Your task to perform on an android device: Is it going to rain tomorrow? Image 0: 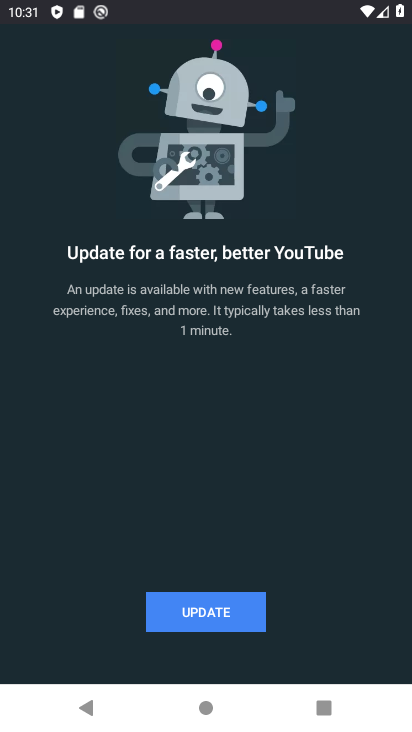
Step 0: press back button
Your task to perform on an android device: Is it going to rain tomorrow? Image 1: 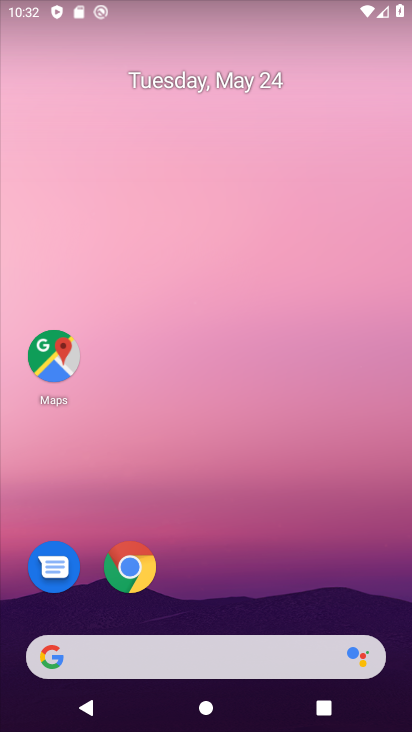
Step 1: drag from (26, 248) to (354, 273)
Your task to perform on an android device: Is it going to rain tomorrow? Image 2: 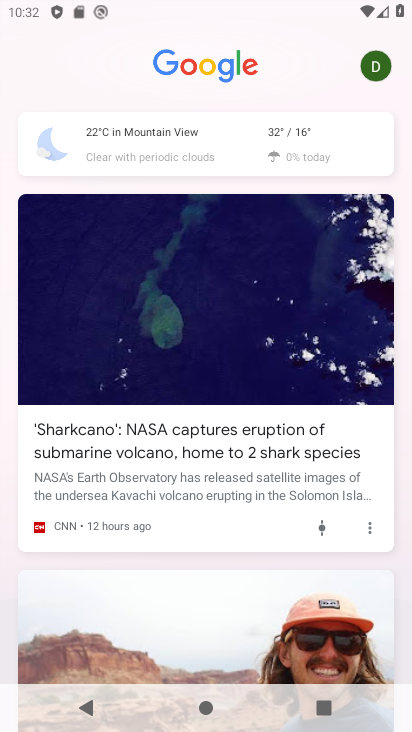
Step 2: click (273, 135)
Your task to perform on an android device: Is it going to rain tomorrow? Image 3: 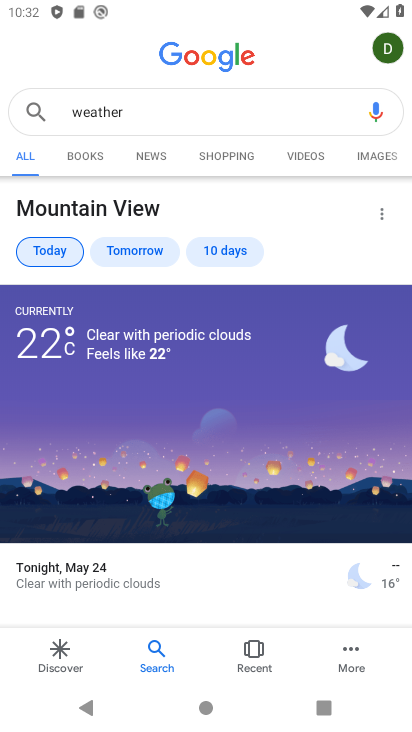
Step 3: task complete